Your task to perform on an android device: change timer sound Image 0: 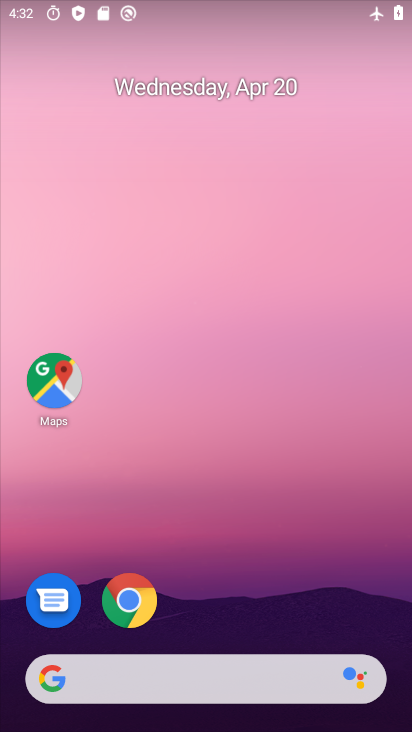
Step 0: drag from (284, 594) to (270, 54)
Your task to perform on an android device: change timer sound Image 1: 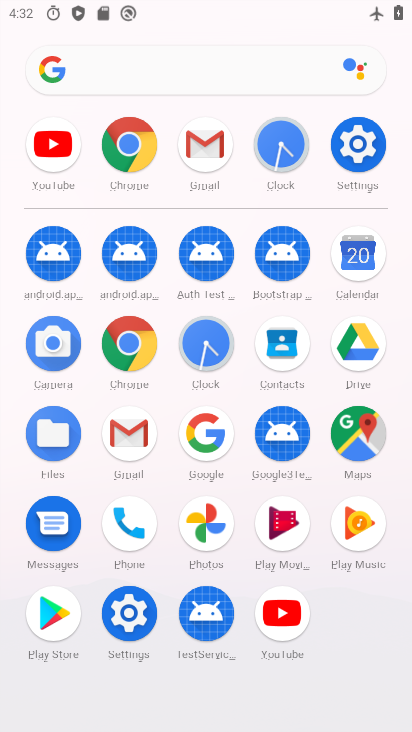
Step 1: click (198, 345)
Your task to perform on an android device: change timer sound Image 2: 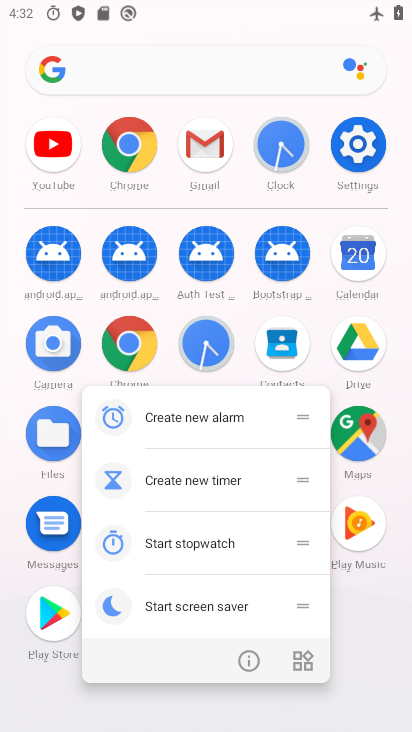
Step 2: click (198, 342)
Your task to perform on an android device: change timer sound Image 3: 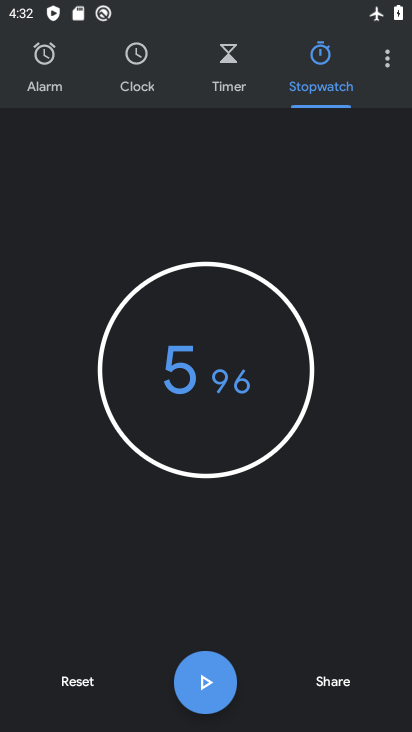
Step 3: click (384, 58)
Your task to perform on an android device: change timer sound Image 4: 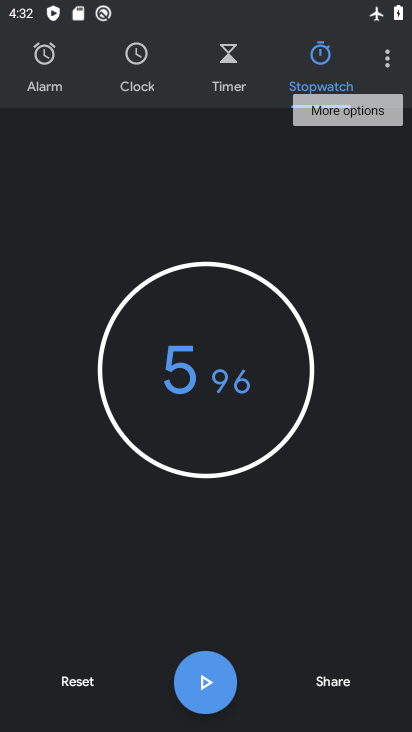
Step 4: click (331, 113)
Your task to perform on an android device: change timer sound Image 5: 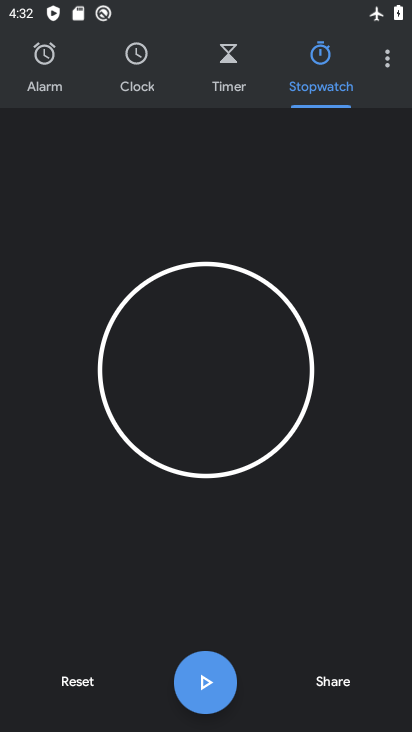
Step 5: click (389, 66)
Your task to perform on an android device: change timer sound Image 6: 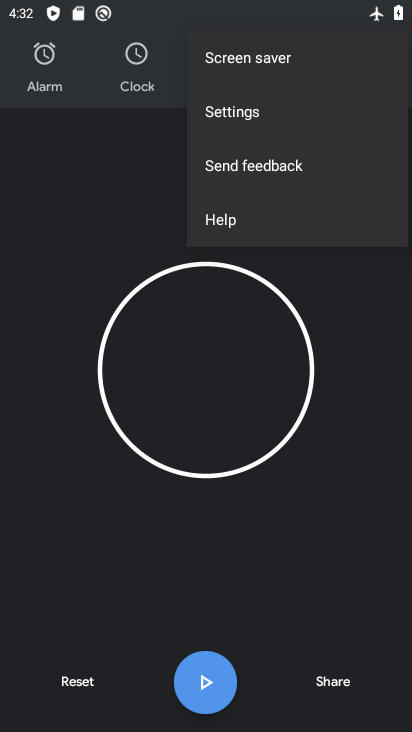
Step 6: click (252, 114)
Your task to perform on an android device: change timer sound Image 7: 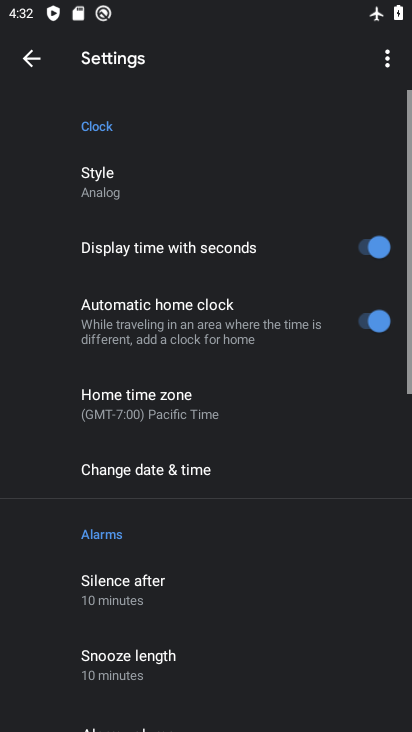
Step 7: drag from (231, 581) to (260, 177)
Your task to perform on an android device: change timer sound Image 8: 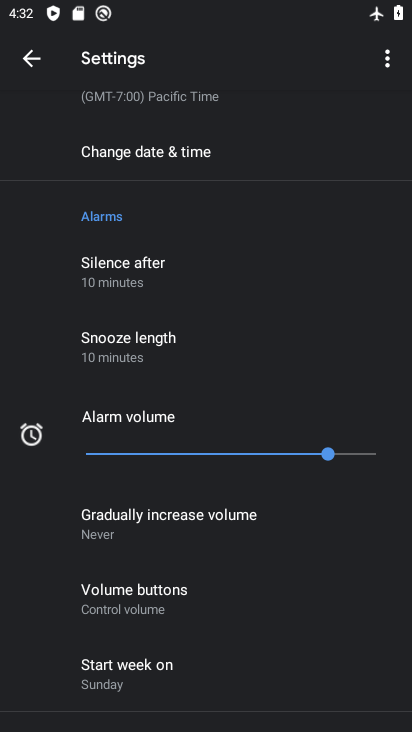
Step 8: drag from (253, 562) to (230, 113)
Your task to perform on an android device: change timer sound Image 9: 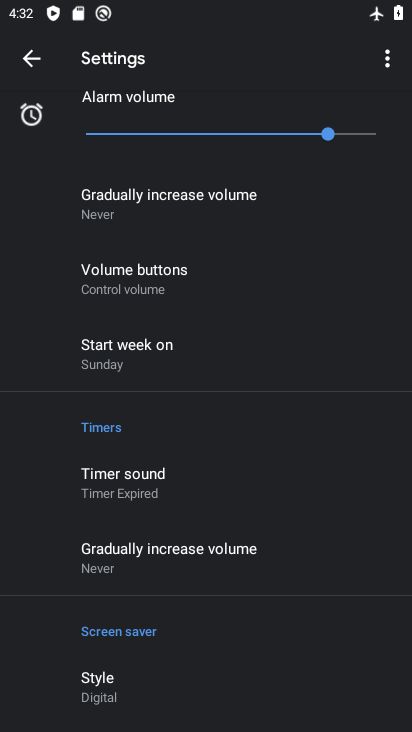
Step 9: click (139, 486)
Your task to perform on an android device: change timer sound Image 10: 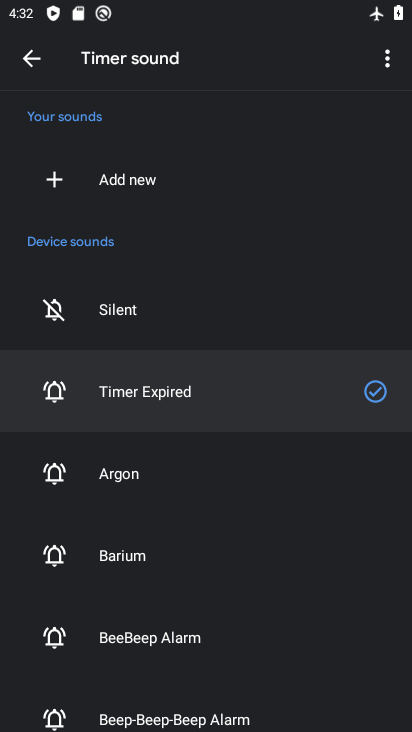
Step 10: click (157, 462)
Your task to perform on an android device: change timer sound Image 11: 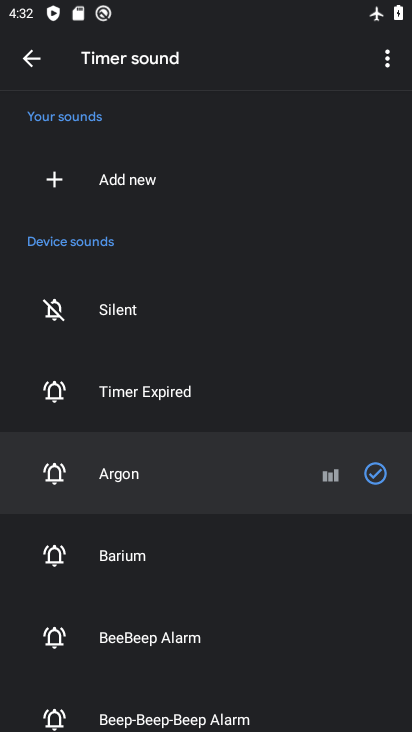
Step 11: task complete